Your task to perform on an android device: check out phone information Image 0: 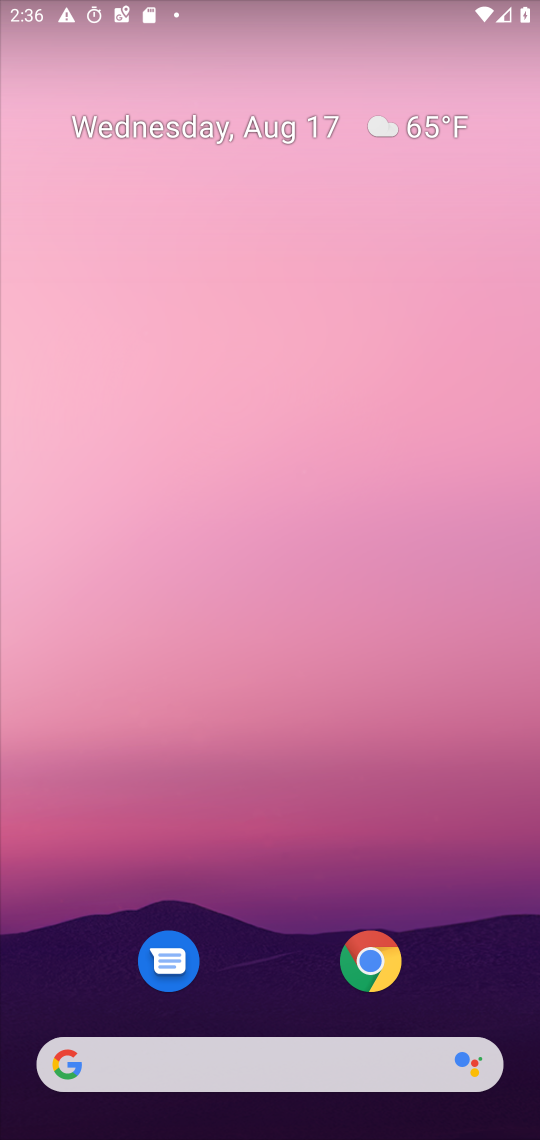
Step 0: drag from (214, 1058) to (413, 118)
Your task to perform on an android device: check out phone information Image 1: 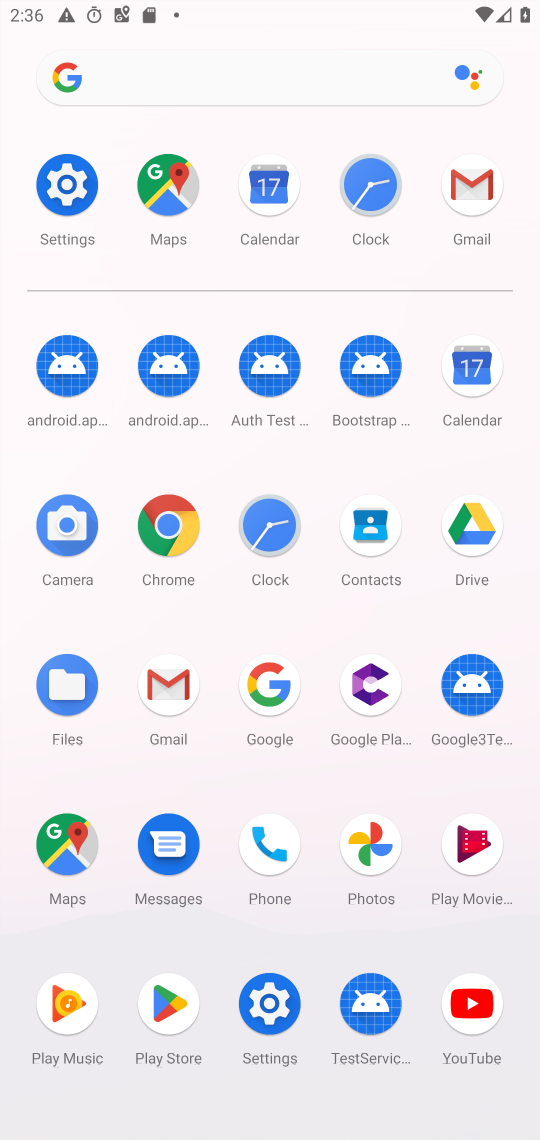
Step 1: click (75, 225)
Your task to perform on an android device: check out phone information Image 2: 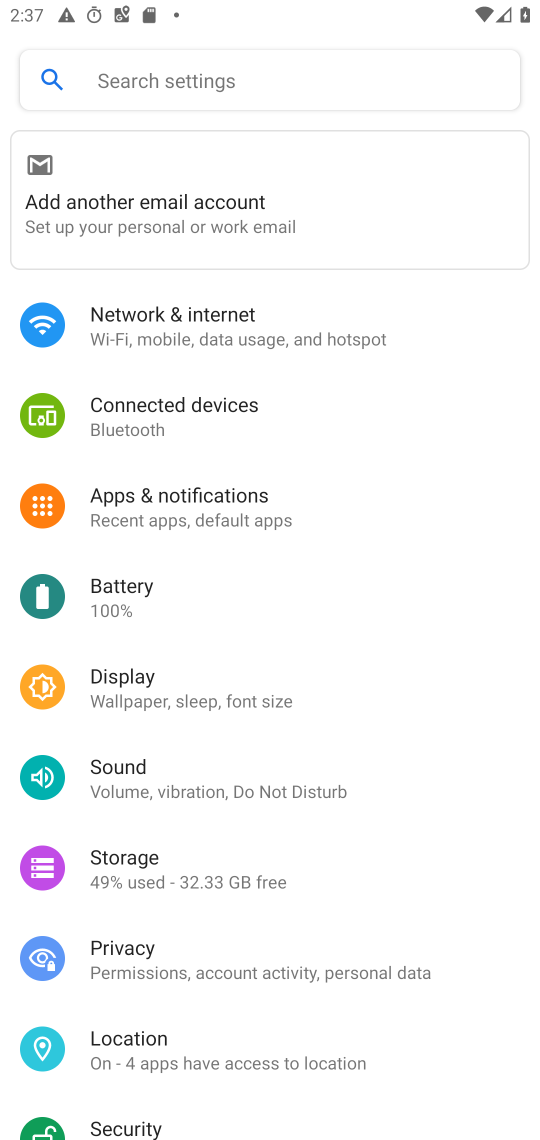
Step 2: drag from (294, 830) to (523, 73)
Your task to perform on an android device: check out phone information Image 3: 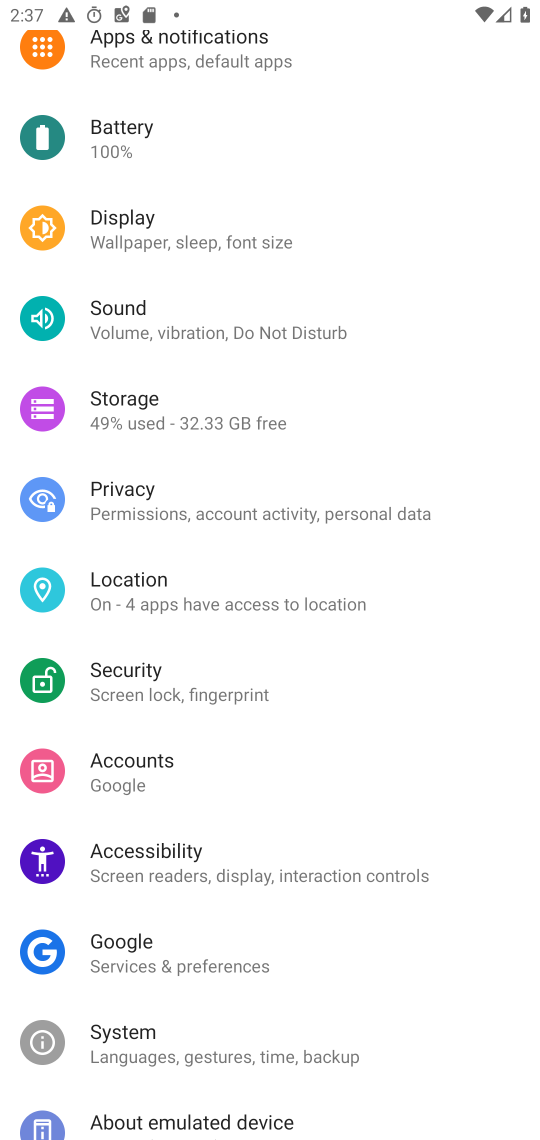
Step 3: drag from (380, 923) to (303, 227)
Your task to perform on an android device: check out phone information Image 4: 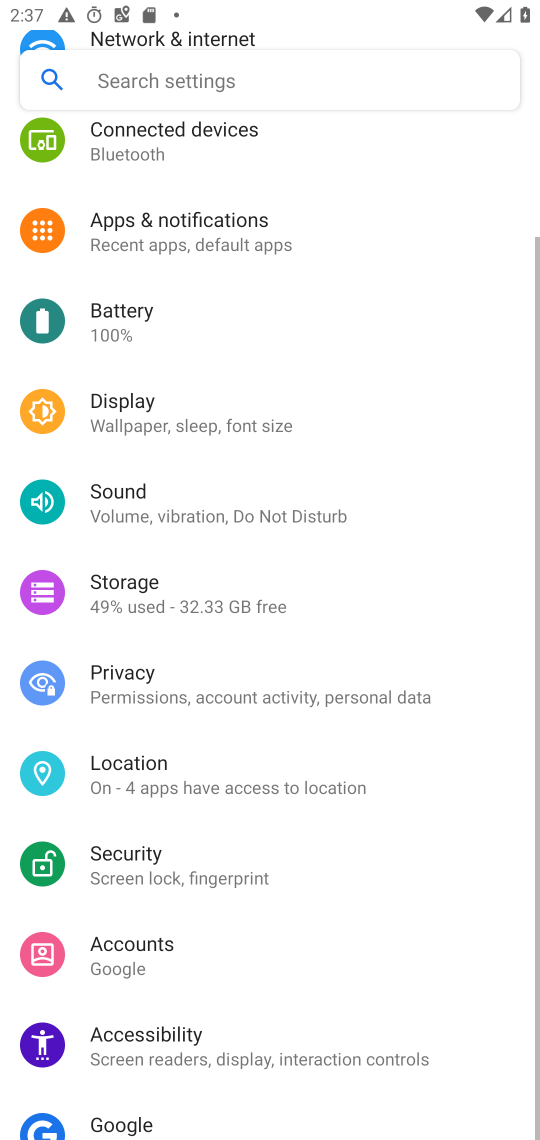
Step 4: drag from (238, 876) to (341, 27)
Your task to perform on an android device: check out phone information Image 5: 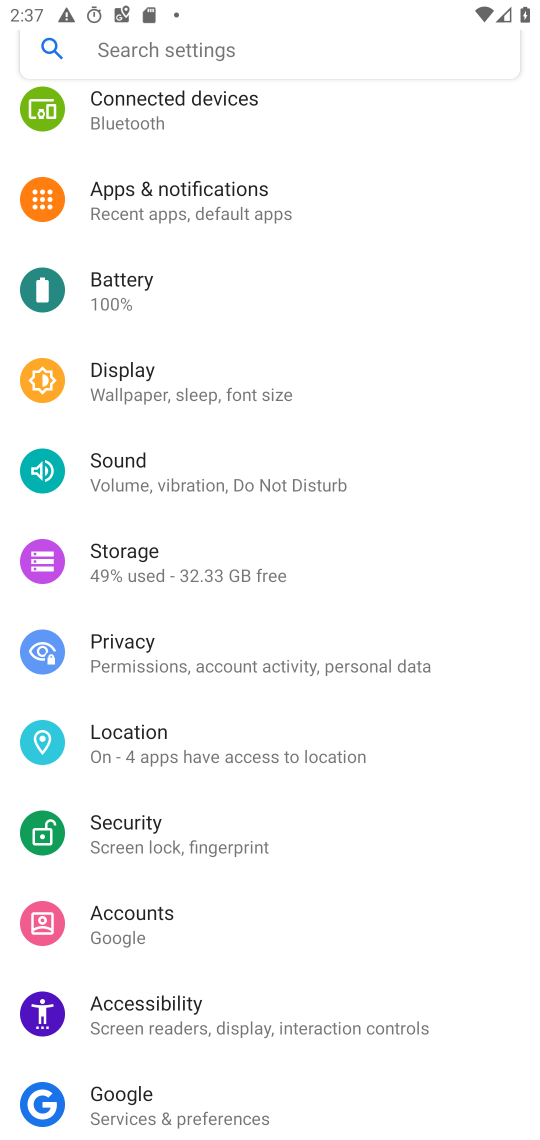
Step 5: drag from (234, 846) to (198, 4)
Your task to perform on an android device: check out phone information Image 6: 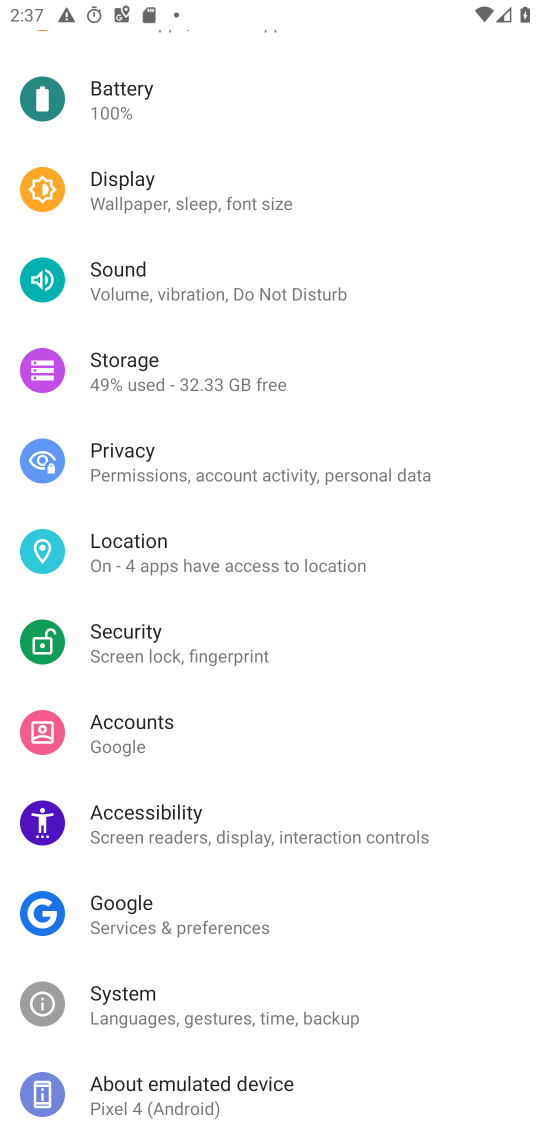
Step 6: drag from (229, 882) to (228, 88)
Your task to perform on an android device: check out phone information Image 7: 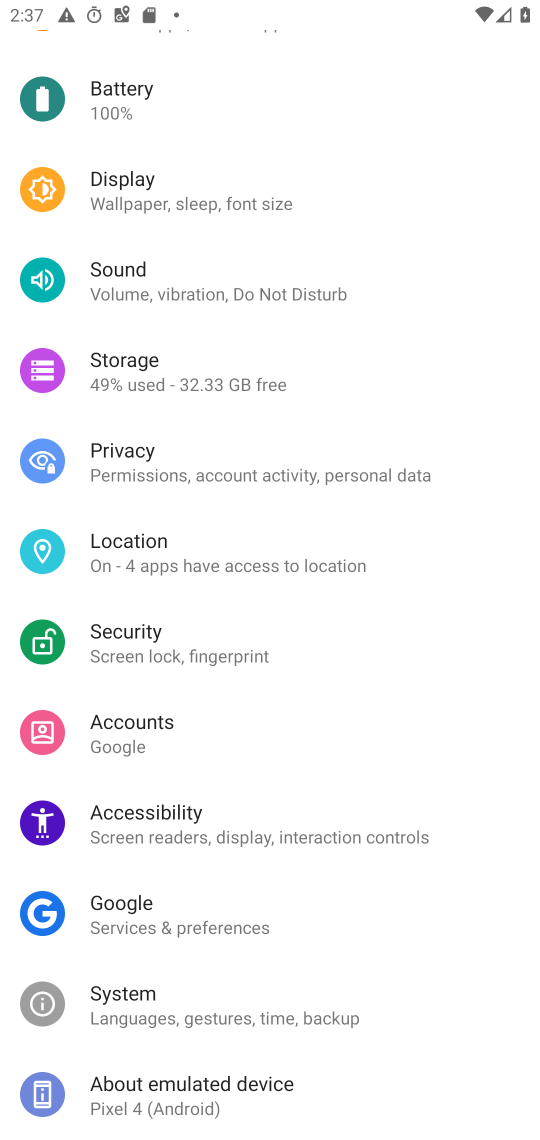
Step 7: click (252, 1101)
Your task to perform on an android device: check out phone information Image 8: 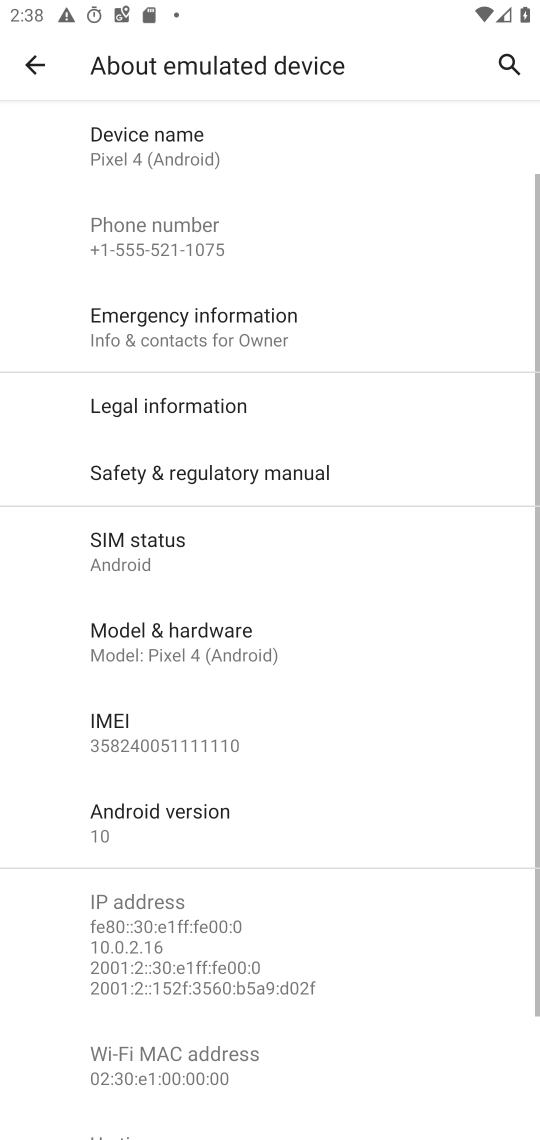
Step 8: task complete